Your task to perform on an android device: Open wifi settings Image 0: 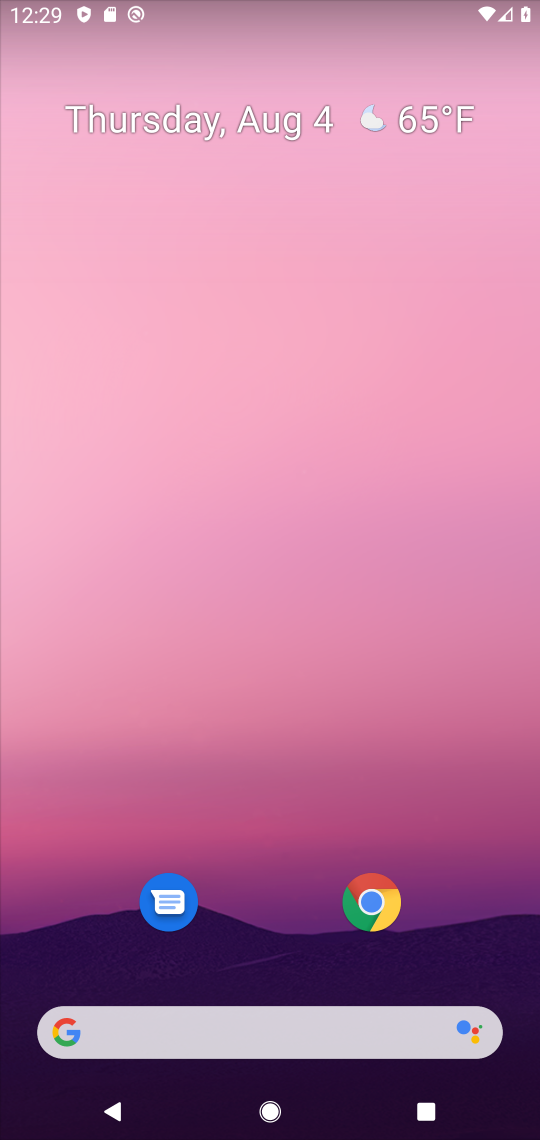
Step 0: drag from (484, 942) to (451, 286)
Your task to perform on an android device: Open wifi settings Image 1: 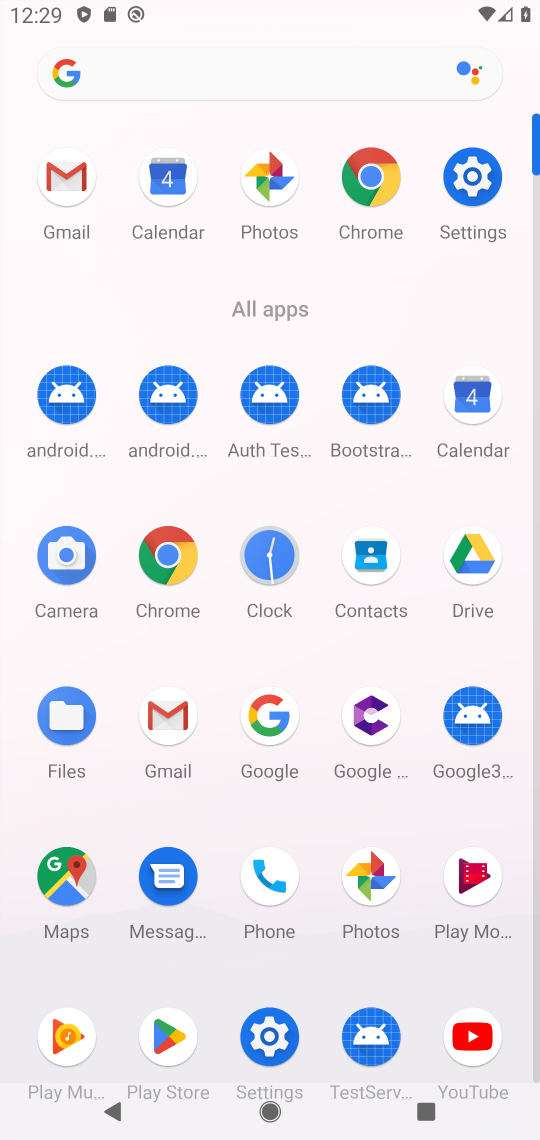
Step 1: click (272, 1035)
Your task to perform on an android device: Open wifi settings Image 2: 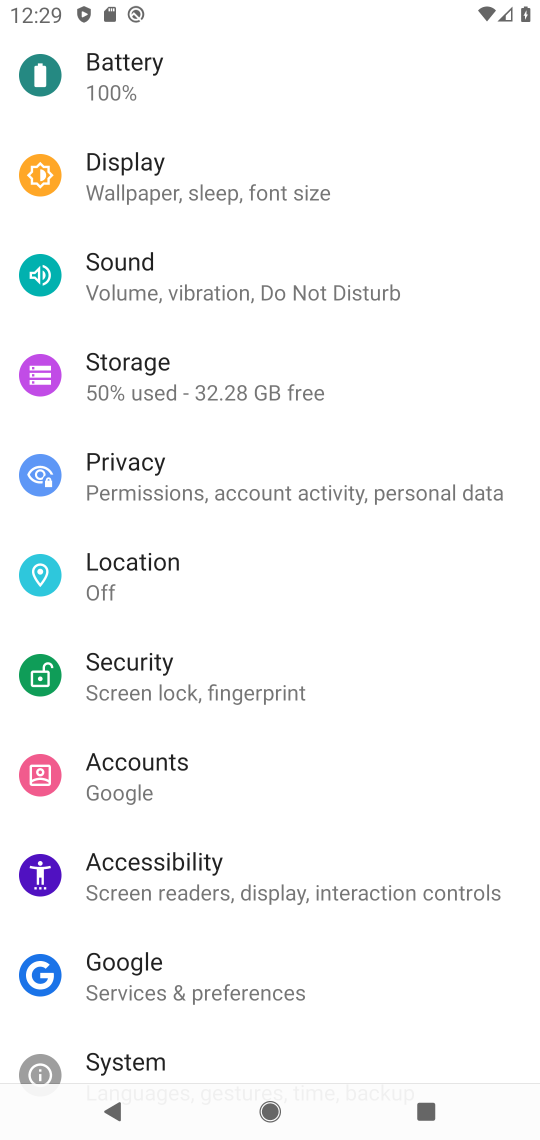
Step 2: drag from (451, 213) to (499, 649)
Your task to perform on an android device: Open wifi settings Image 3: 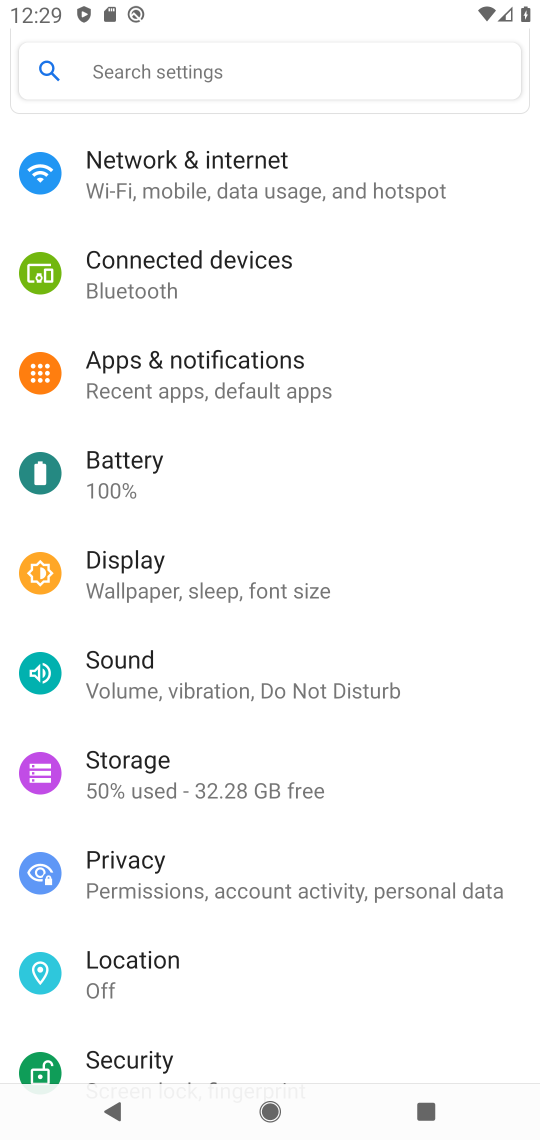
Step 3: drag from (464, 368) to (463, 668)
Your task to perform on an android device: Open wifi settings Image 4: 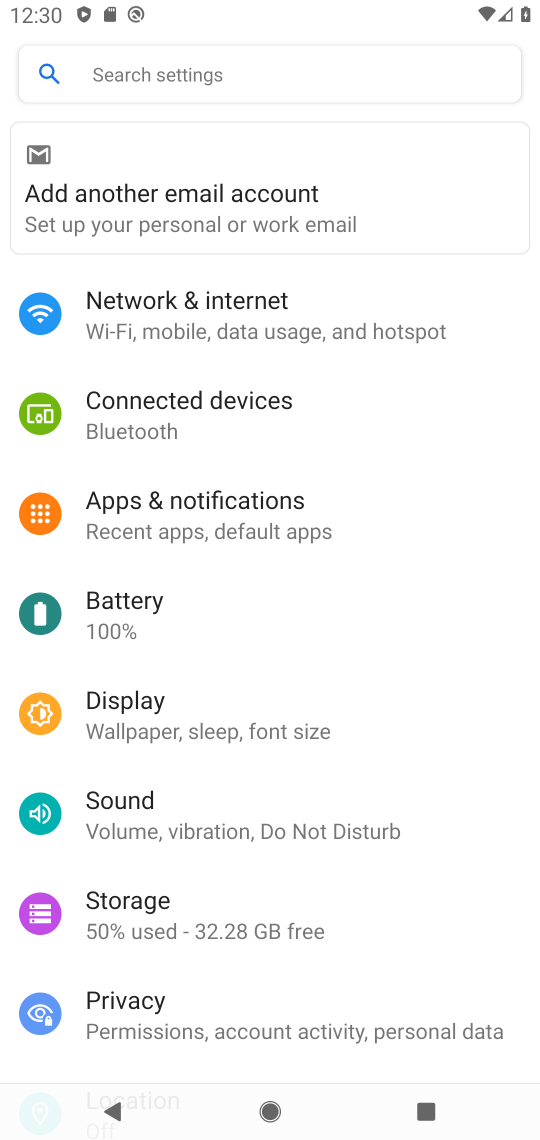
Step 4: click (157, 305)
Your task to perform on an android device: Open wifi settings Image 5: 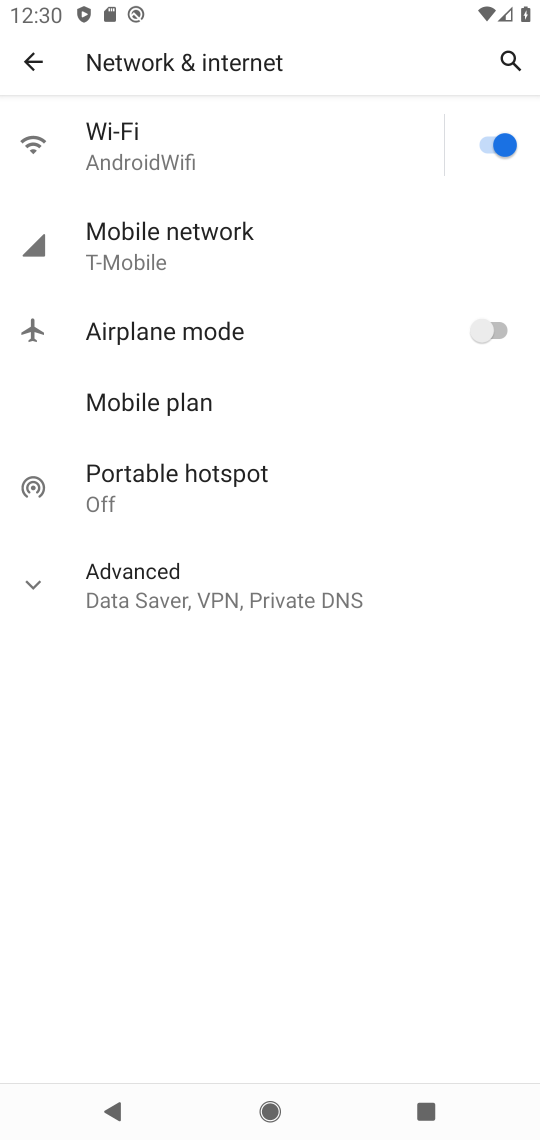
Step 5: click (109, 131)
Your task to perform on an android device: Open wifi settings Image 6: 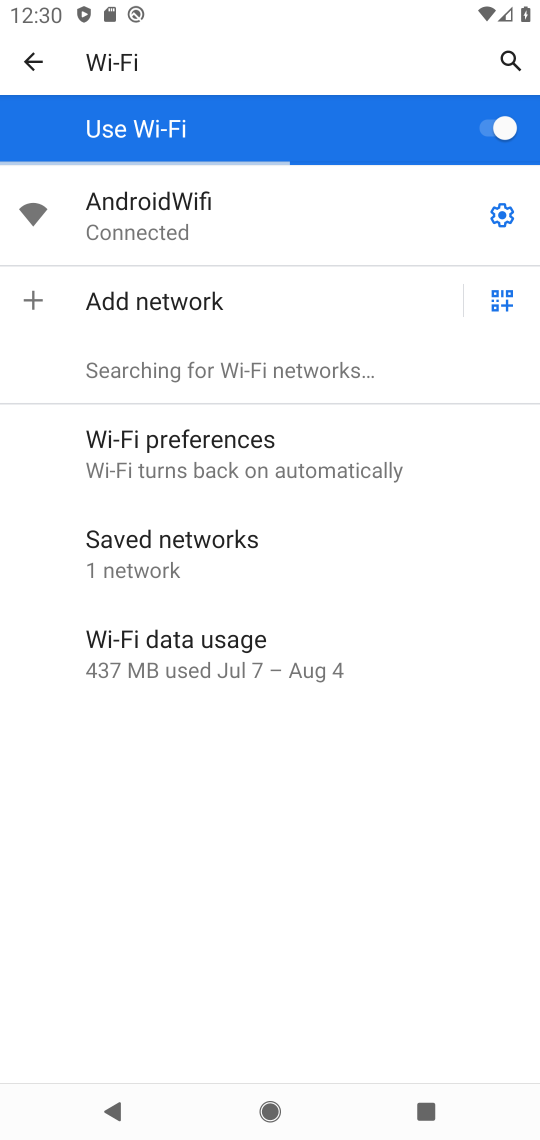
Step 6: click (502, 214)
Your task to perform on an android device: Open wifi settings Image 7: 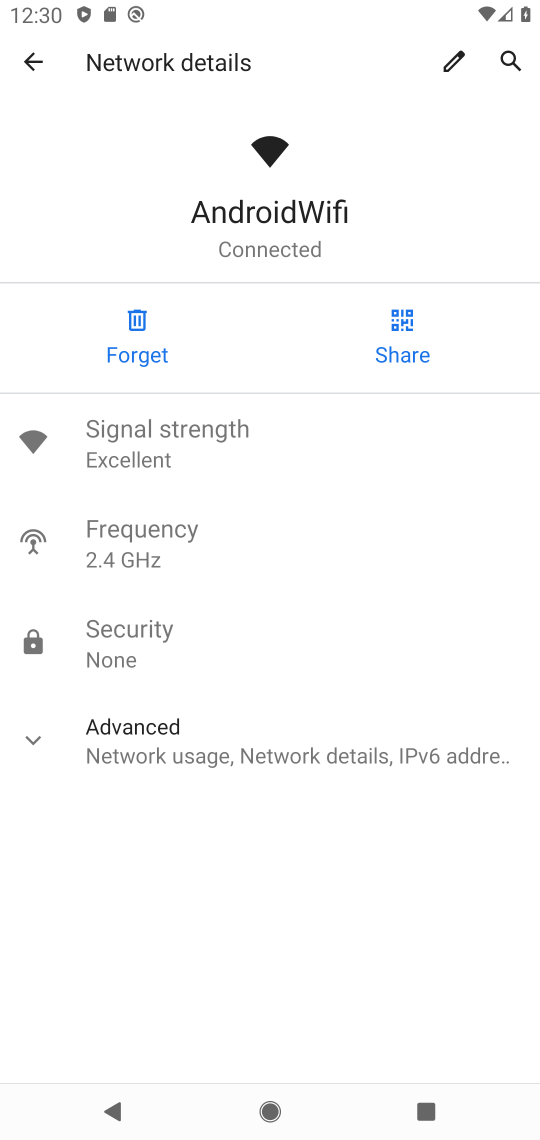
Step 7: task complete